Your task to perform on an android device: Open display settings Image 0: 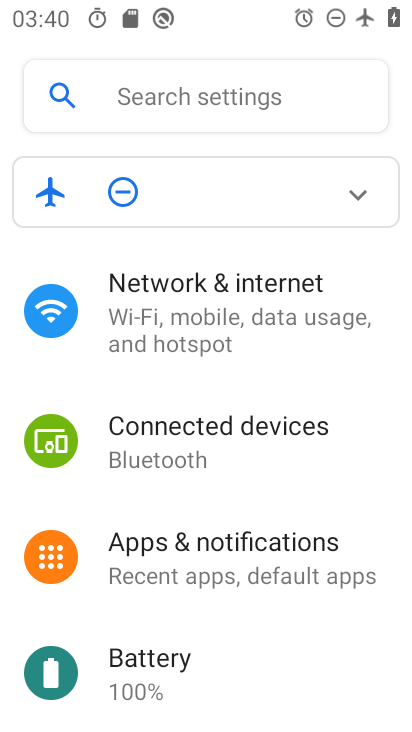
Step 0: drag from (361, 625) to (361, 376)
Your task to perform on an android device: Open display settings Image 1: 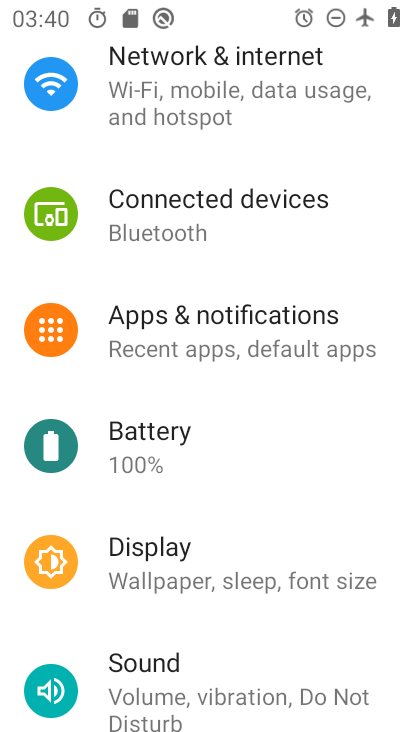
Step 1: click (350, 571)
Your task to perform on an android device: Open display settings Image 2: 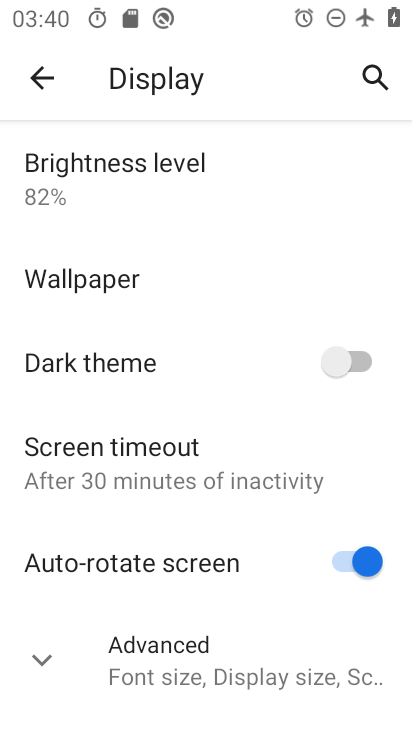
Step 2: click (243, 677)
Your task to perform on an android device: Open display settings Image 3: 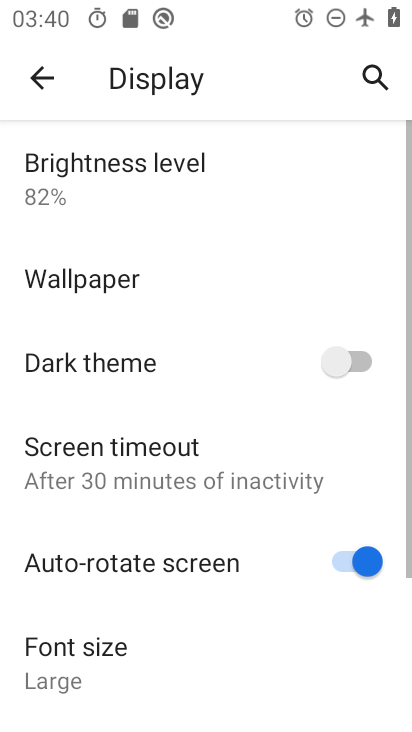
Step 3: task complete